Your task to perform on an android device: Open Google Image 0: 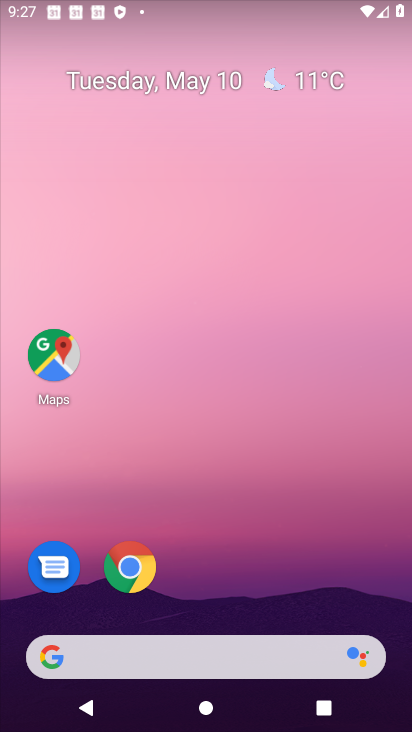
Step 0: drag from (187, 637) to (204, 215)
Your task to perform on an android device: Open Google Image 1: 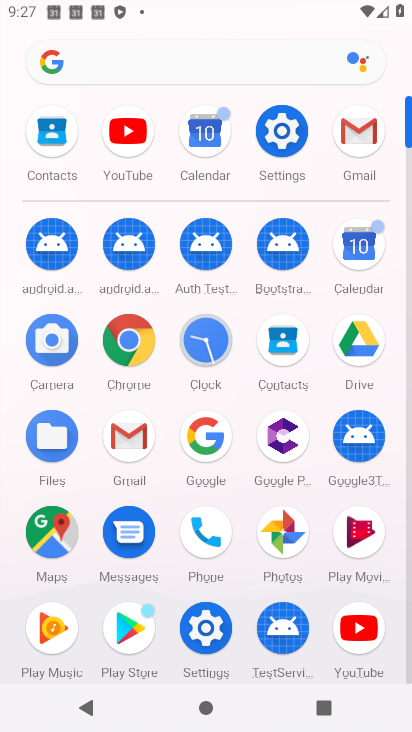
Step 1: click (200, 428)
Your task to perform on an android device: Open Google Image 2: 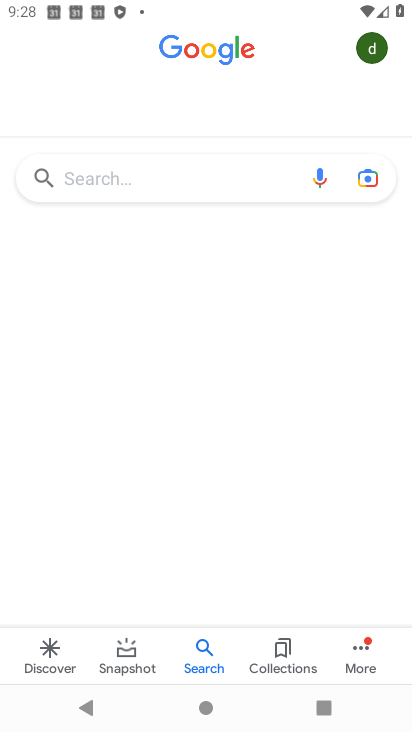
Step 2: task complete